Your task to perform on an android device: turn vacation reply on in the gmail app Image 0: 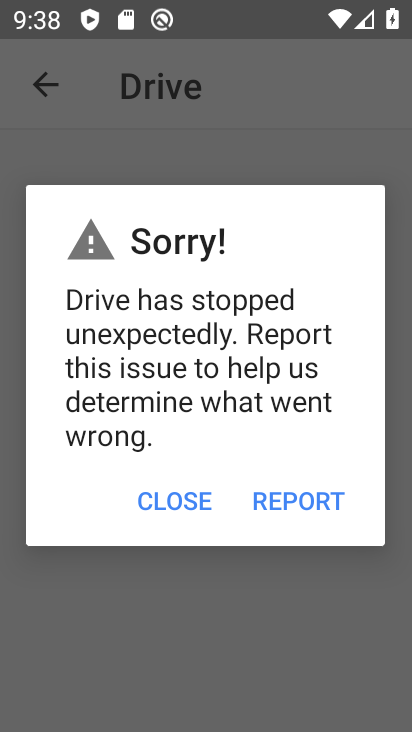
Step 0: press home button
Your task to perform on an android device: turn vacation reply on in the gmail app Image 1: 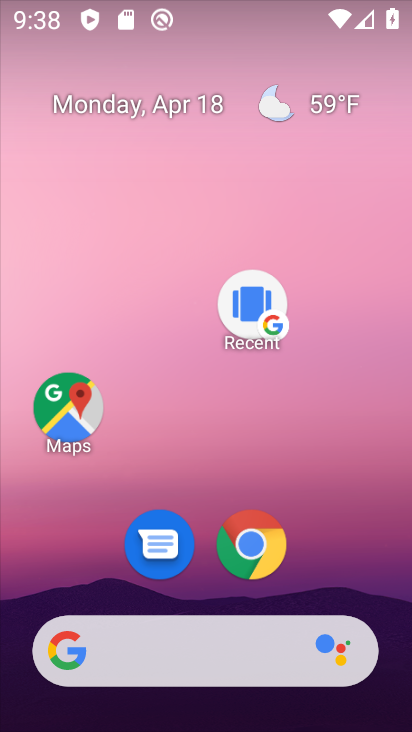
Step 1: drag from (371, 536) to (352, 37)
Your task to perform on an android device: turn vacation reply on in the gmail app Image 2: 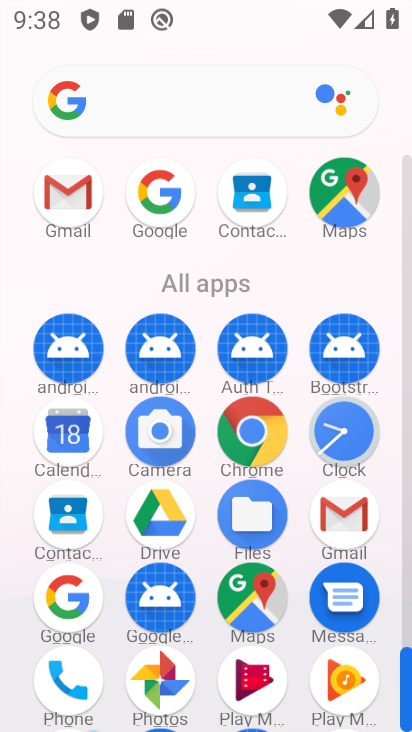
Step 2: click (55, 178)
Your task to perform on an android device: turn vacation reply on in the gmail app Image 3: 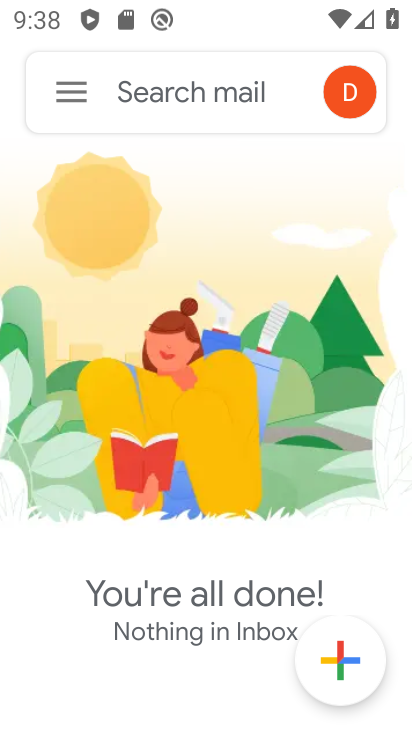
Step 3: click (60, 103)
Your task to perform on an android device: turn vacation reply on in the gmail app Image 4: 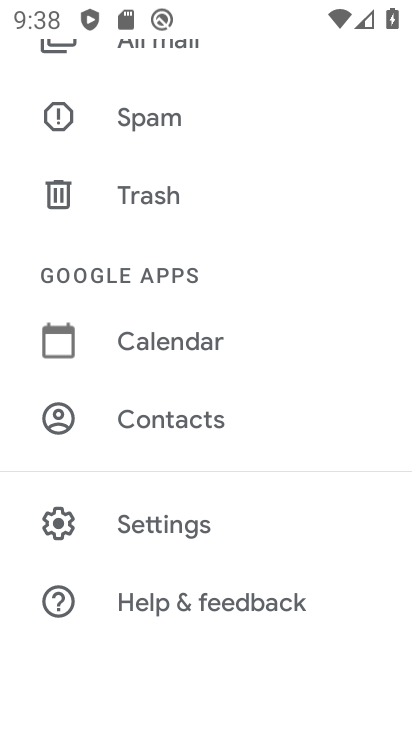
Step 4: click (211, 535)
Your task to perform on an android device: turn vacation reply on in the gmail app Image 5: 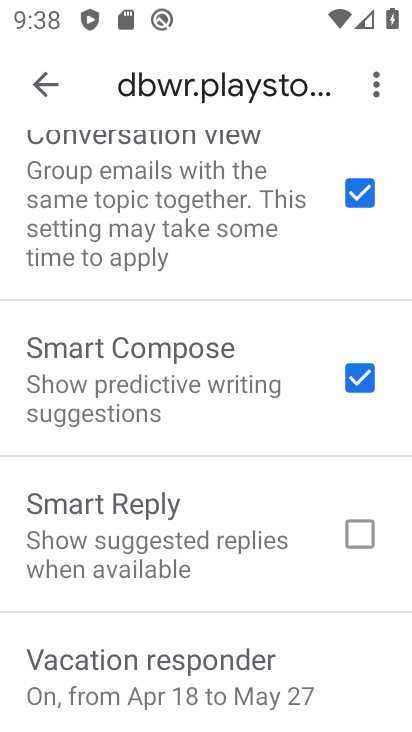
Step 5: click (245, 667)
Your task to perform on an android device: turn vacation reply on in the gmail app Image 6: 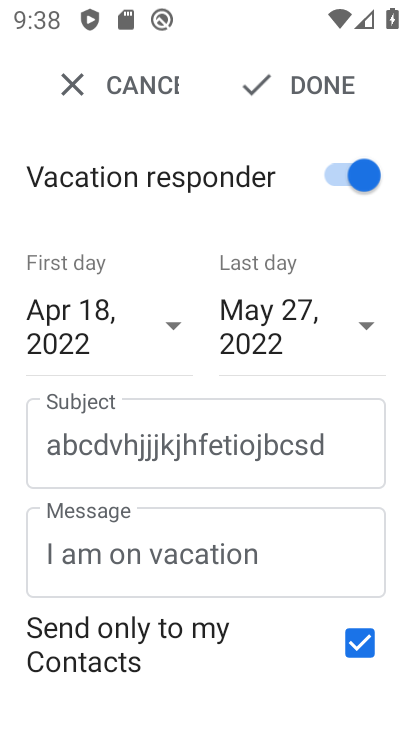
Step 6: click (335, 183)
Your task to perform on an android device: turn vacation reply on in the gmail app Image 7: 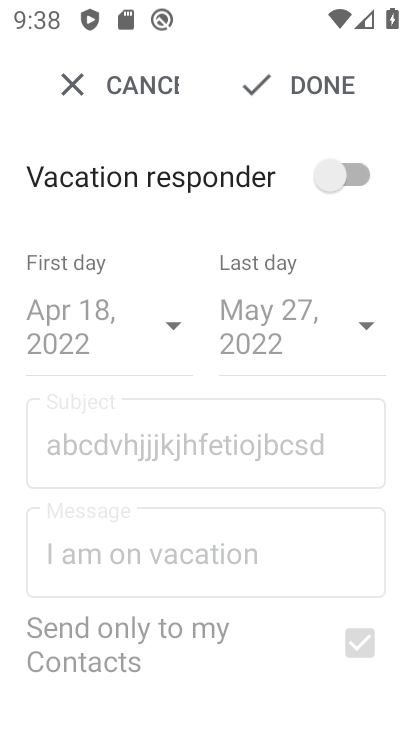
Step 7: click (335, 183)
Your task to perform on an android device: turn vacation reply on in the gmail app Image 8: 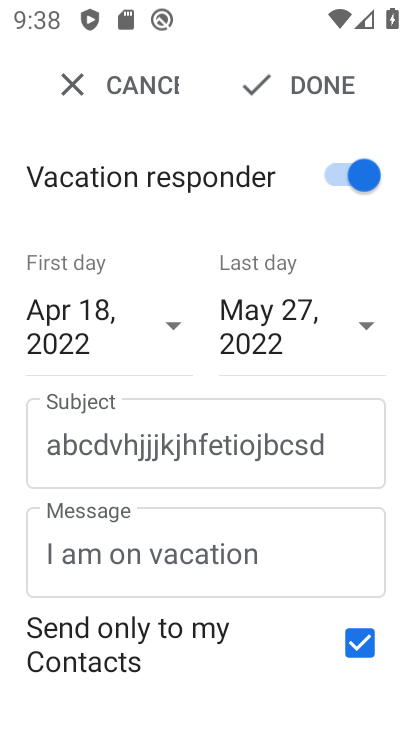
Step 8: click (321, 88)
Your task to perform on an android device: turn vacation reply on in the gmail app Image 9: 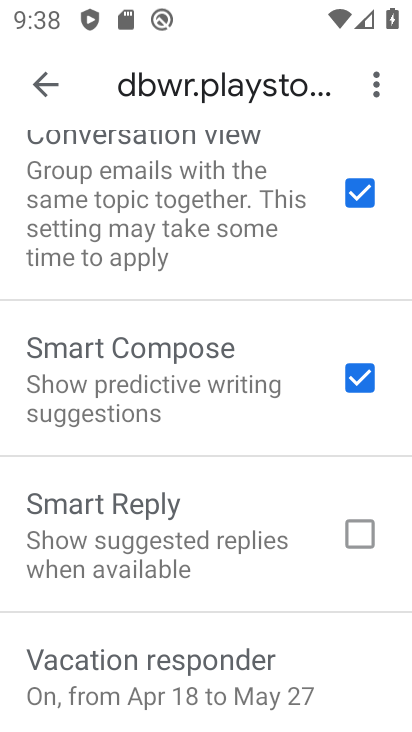
Step 9: task complete